Your task to perform on an android device: add a label to a message in the gmail app Image 0: 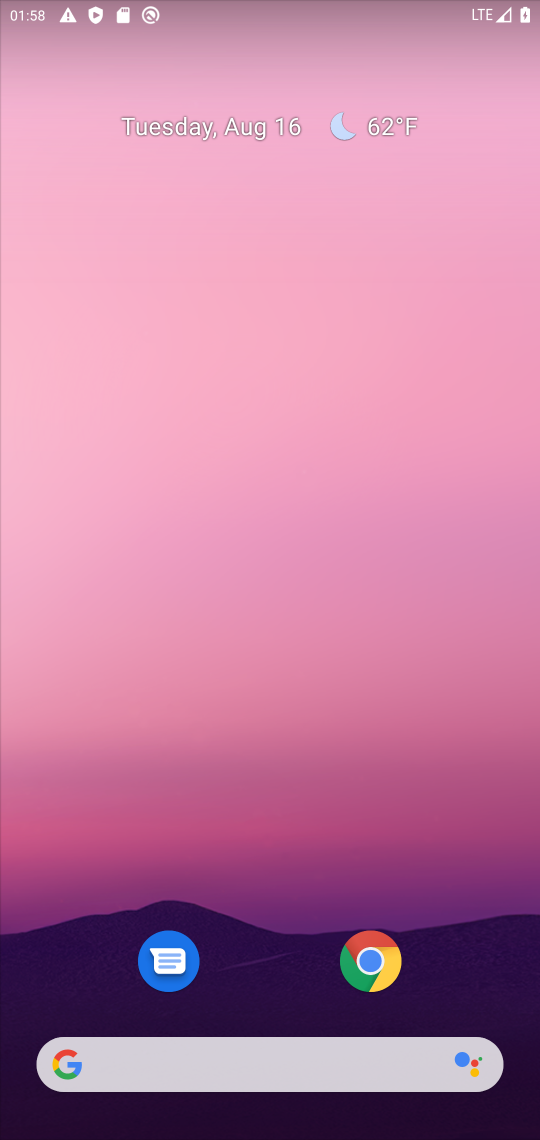
Step 0: press home button
Your task to perform on an android device: add a label to a message in the gmail app Image 1: 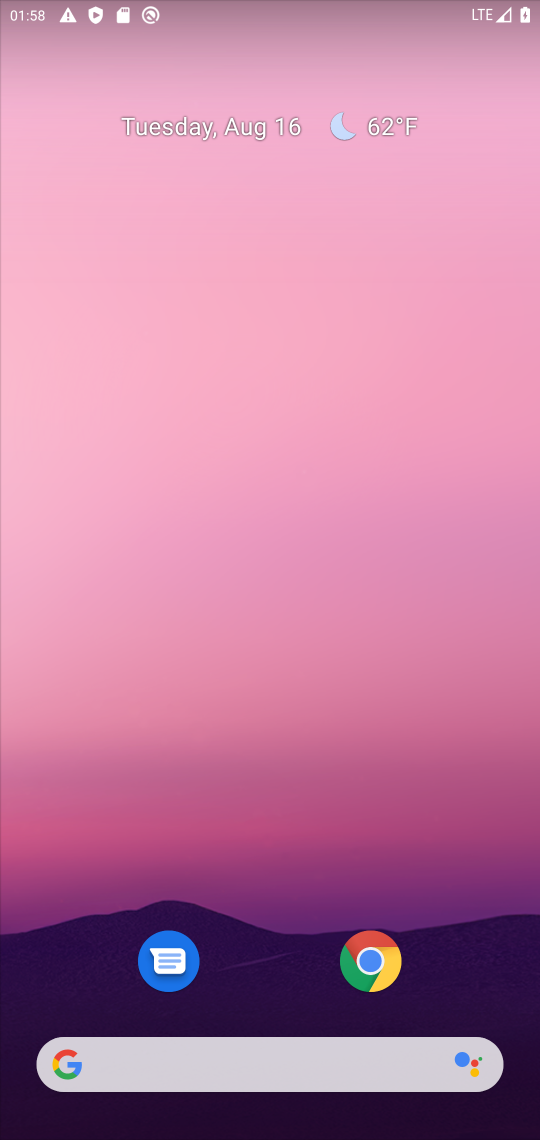
Step 1: drag from (291, 934) to (279, 25)
Your task to perform on an android device: add a label to a message in the gmail app Image 2: 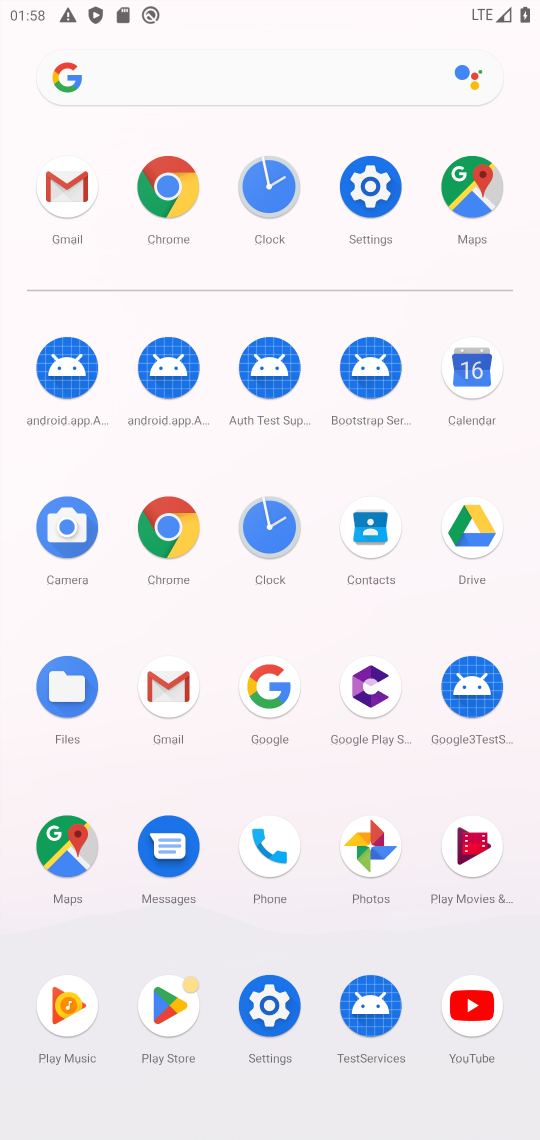
Step 2: click (187, 692)
Your task to perform on an android device: add a label to a message in the gmail app Image 3: 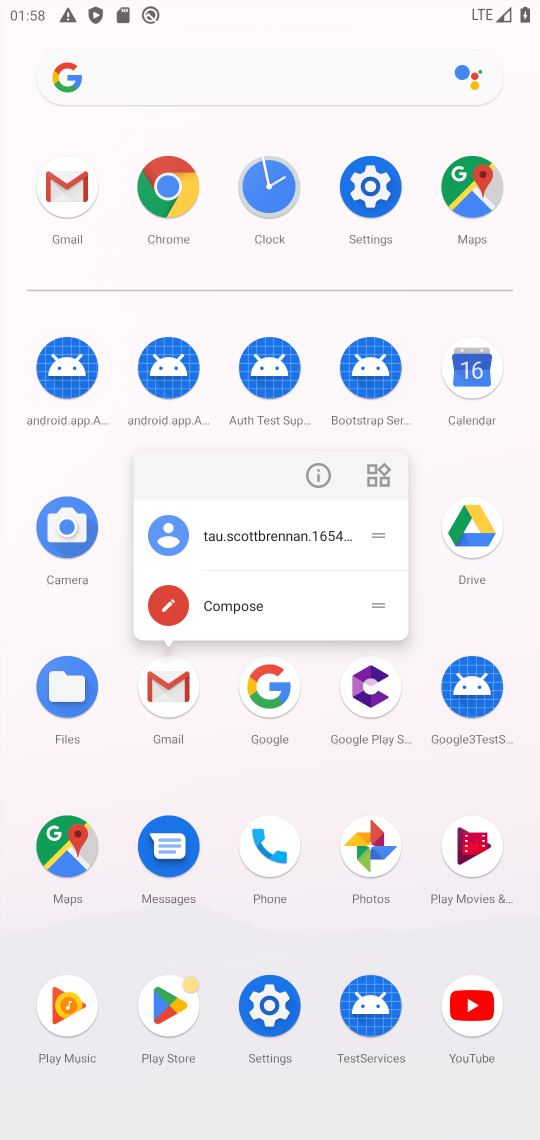
Step 3: click (181, 692)
Your task to perform on an android device: add a label to a message in the gmail app Image 4: 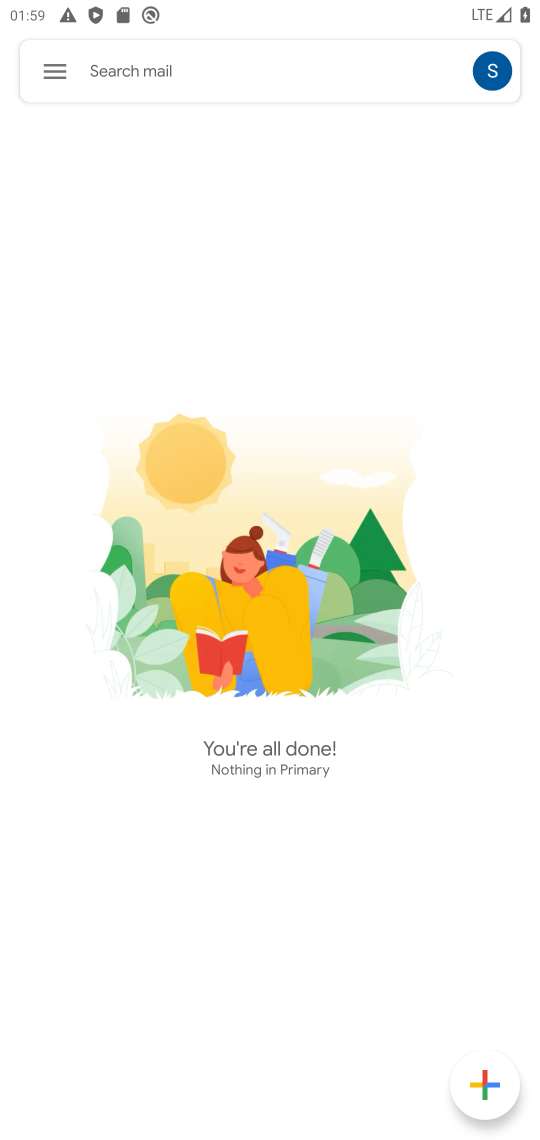
Step 4: task complete